Your task to perform on an android device: Play the last video I watched on Youtube Image 0: 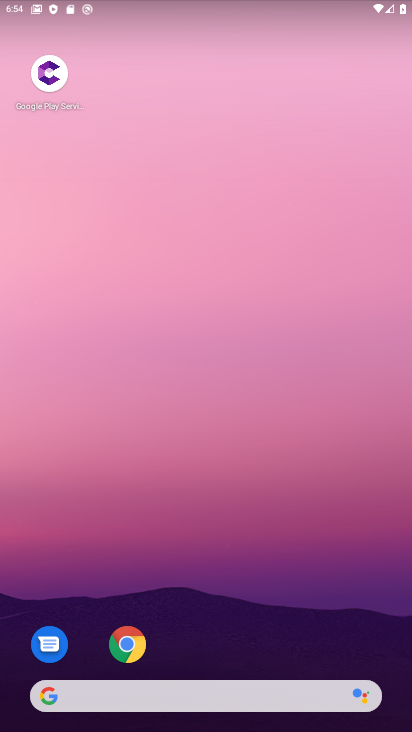
Step 0: drag from (298, 620) to (222, 253)
Your task to perform on an android device: Play the last video I watched on Youtube Image 1: 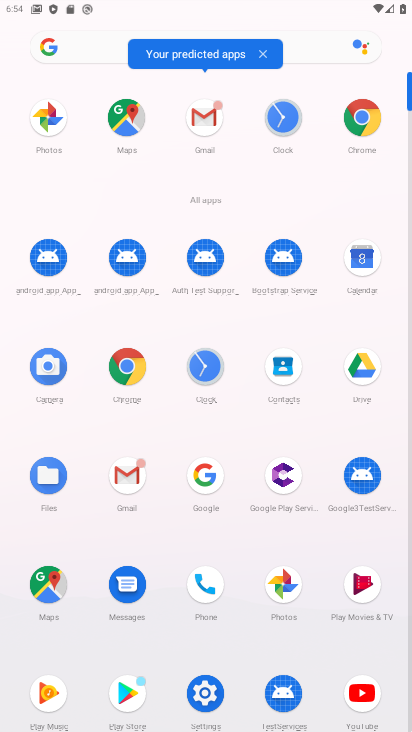
Step 1: click (360, 696)
Your task to perform on an android device: Play the last video I watched on Youtube Image 2: 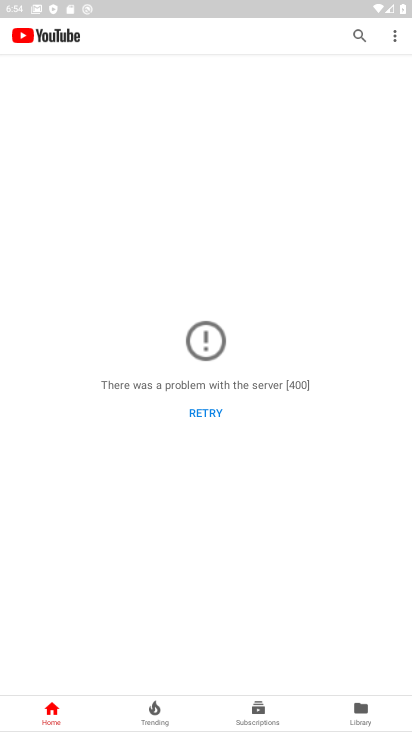
Step 2: click (209, 404)
Your task to perform on an android device: Play the last video I watched on Youtube Image 3: 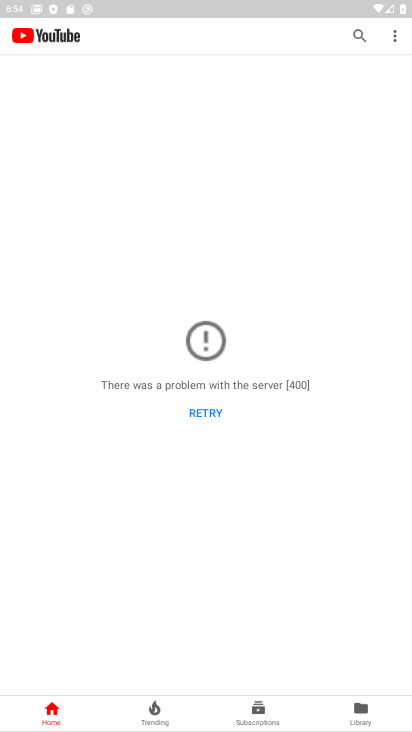
Step 3: click (203, 415)
Your task to perform on an android device: Play the last video I watched on Youtube Image 4: 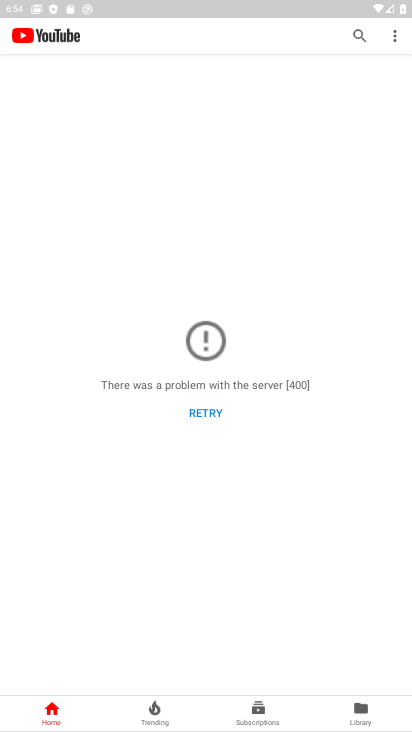
Step 4: click (203, 415)
Your task to perform on an android device: Play the last video I watched on Youtube Image 5: 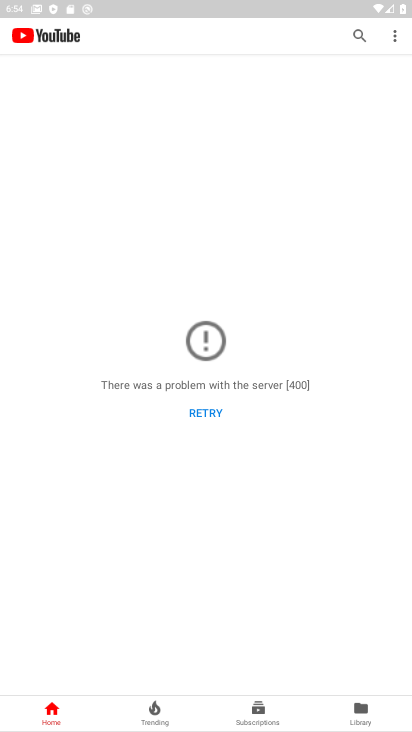
Step 5: click (203, 415)
Your task to perform on an android device: Play the last video I watched on Youtube Image 6: 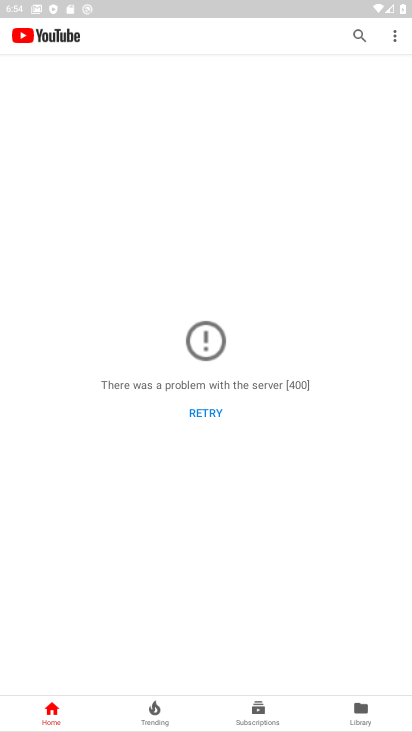
Step 6: click (203, 415)
Your task to perform on an android device: Play the last video I watched on Youtube Image 7: 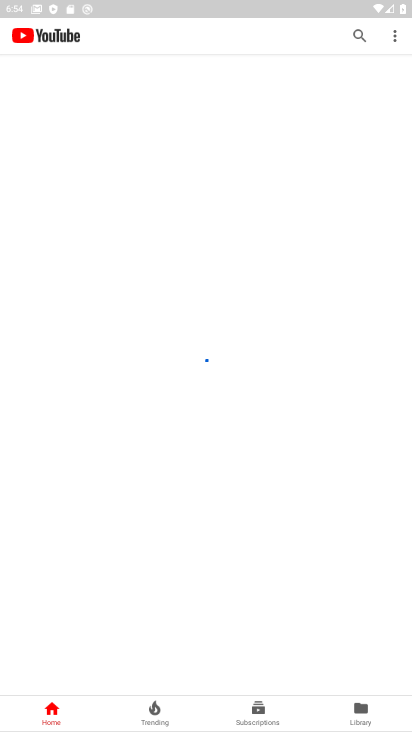
Step 7: click (203, 415)
Your task to perform on an android device: Play the last video I watched on Youtube Image 8: 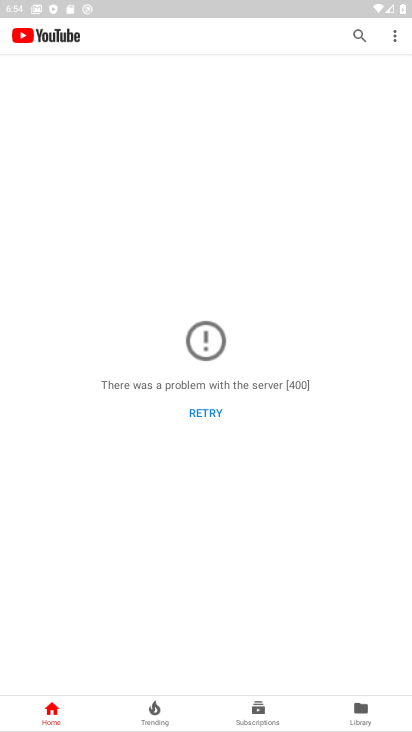
Step 8: click (203, 415)
Your task to perform on an android device: Play the last video I watched on Youtube Image 9: 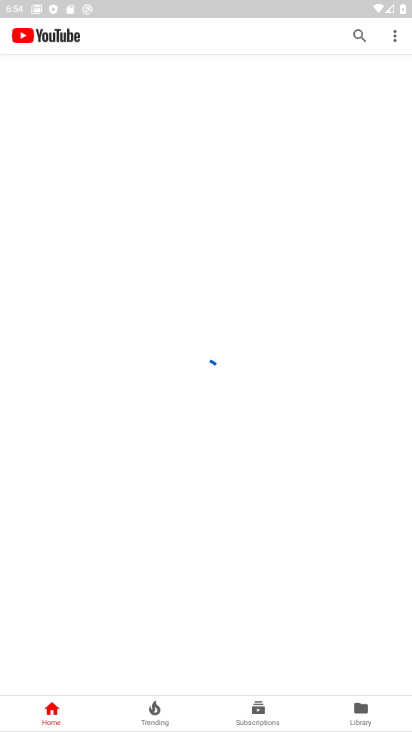
Step 9: click (203, 415)
Your task to perform on an android device: Play the last video I watched on Youtube Image 10: 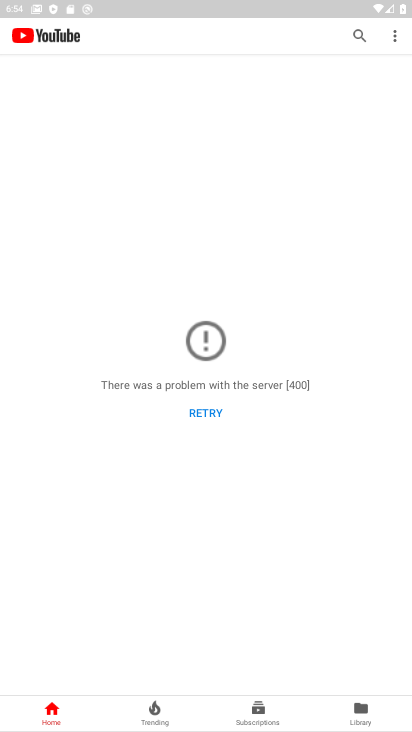
Step 10: task complete